Your task to perform on an android device: Go to privacy settings Image 0: 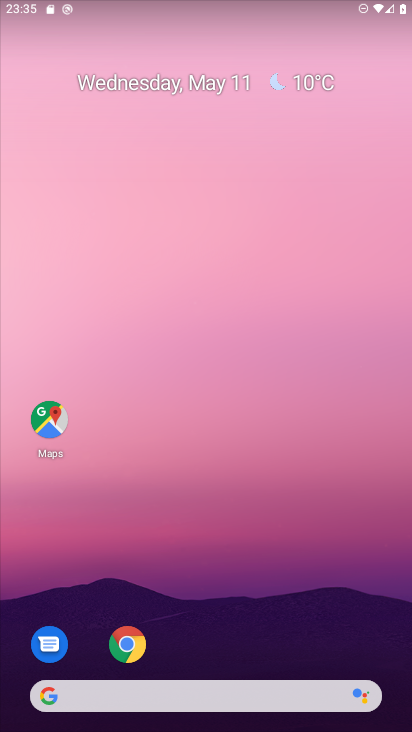
Step 0: drag from (287, 653) to (392, 39)
Your task to perform on an android device: Go to privacy settings Image 1: 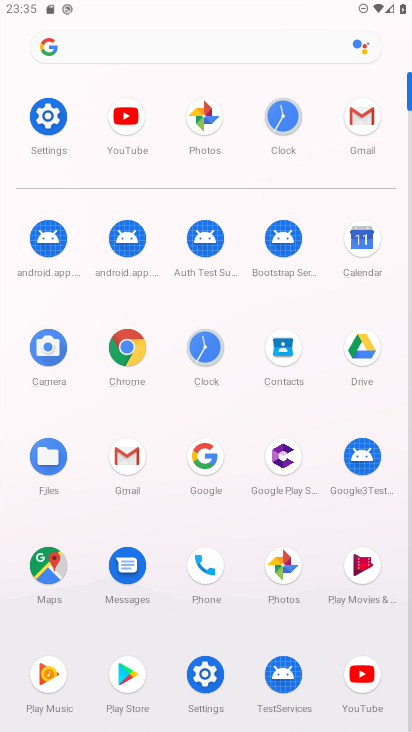
Step 1: click (50, 110)
Your task to perform on an android device: Go to privacy settings Image 2: 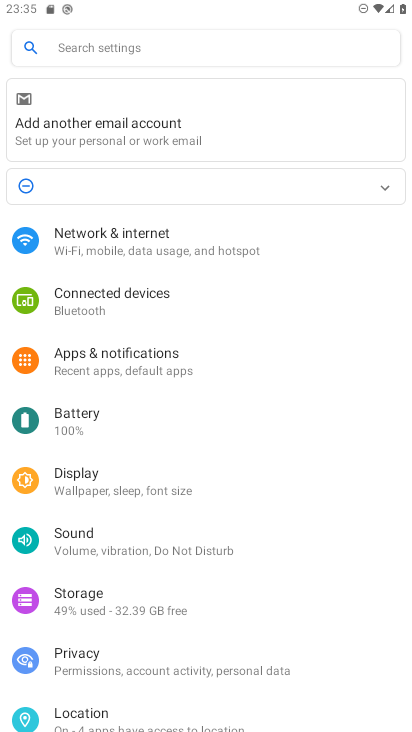
Step 2: click (111, 668)
Your task to perform on an android device: Go to privacy settings Image 3: 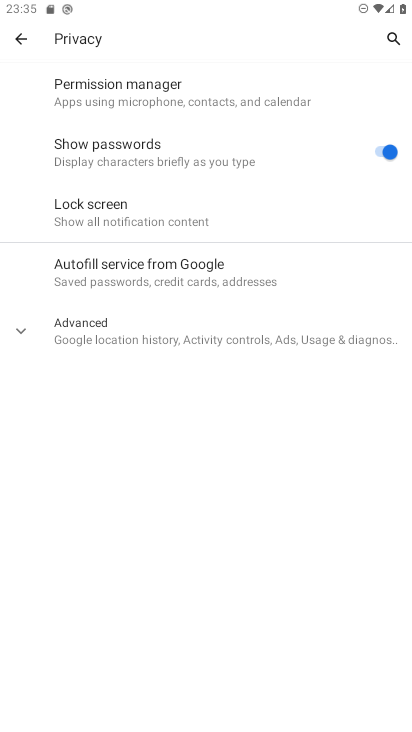
Step 3: task complete